Your task to perform on an android device: Go to Google Image 0: 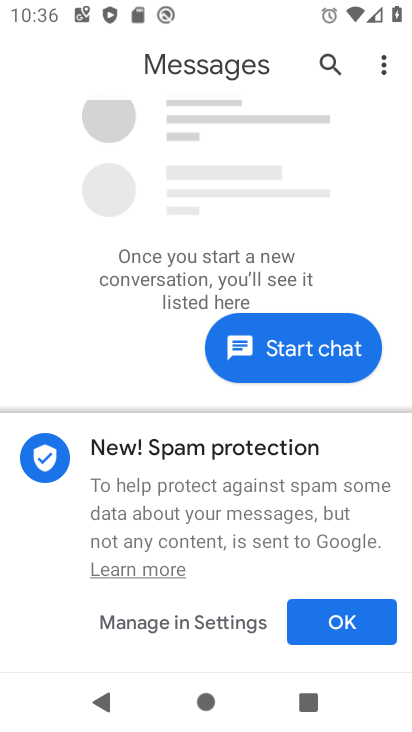
Step 0: press home button
Your task to perform on an android device: Go to Google Image 1: 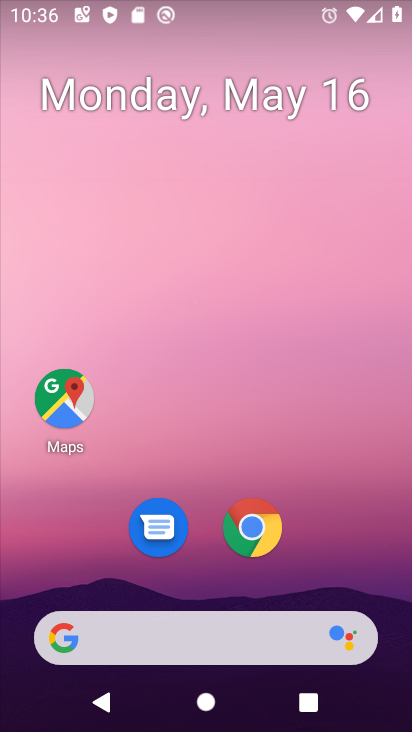
Step 1: drag from (383, 588) to (367, 52)
Your task to perform on an android device: Go to Google Image 2: 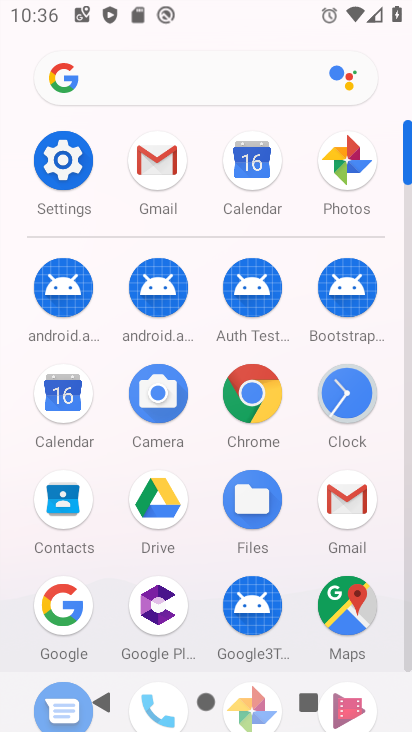
Step 2: click (63, 604)
Your task to perform on an android device: Go to Google Image 3: 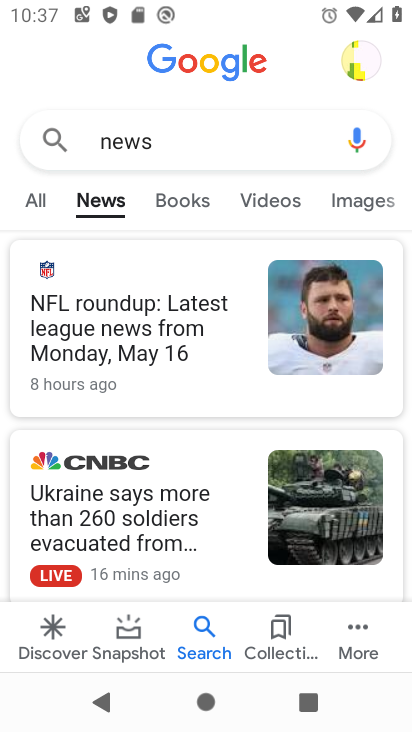
Step 3: task complete